Your task to perform on an android device: Open the contacts Image 0: 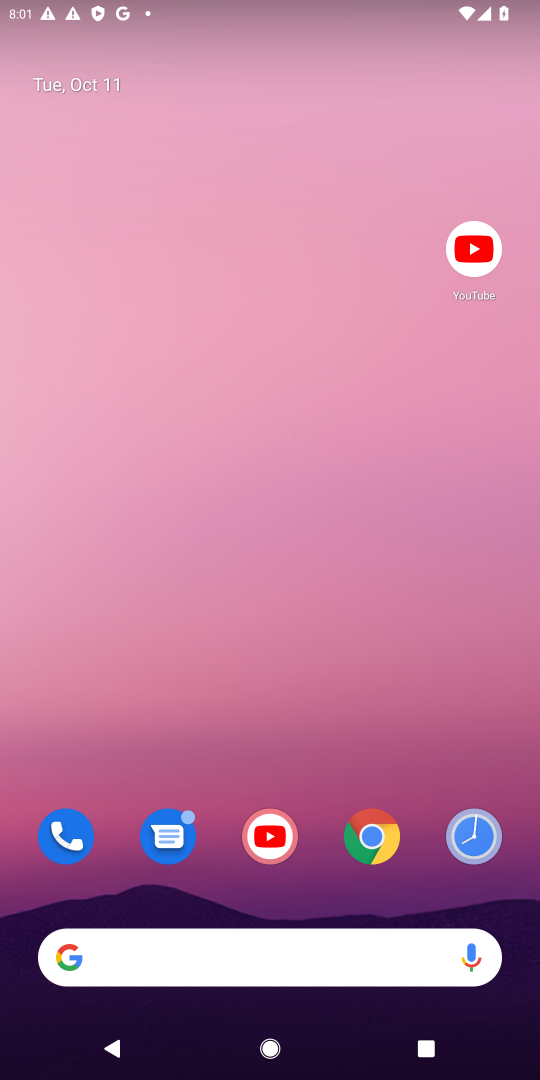
Step 0: drag from (288, 940) to (539, 367)
Your task to perform on an android device: Open the contacts Image 1: 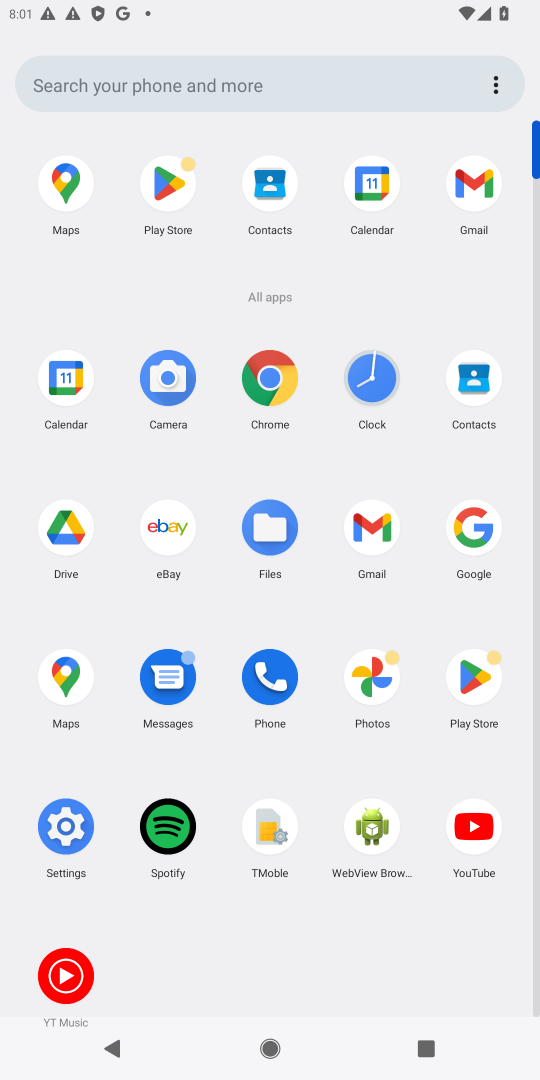
Step 1: click (468, 382)
Your task to perform on an android device: Open the contacts Image 2: 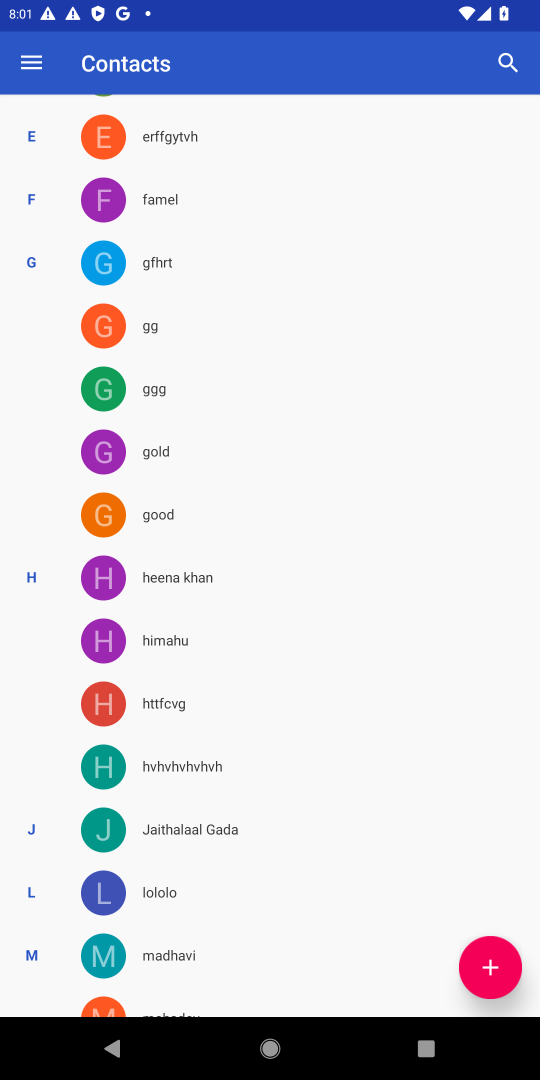
Step 2: task complete